Your task to perform on an android device: check the backup settings in the google photos Image 0: 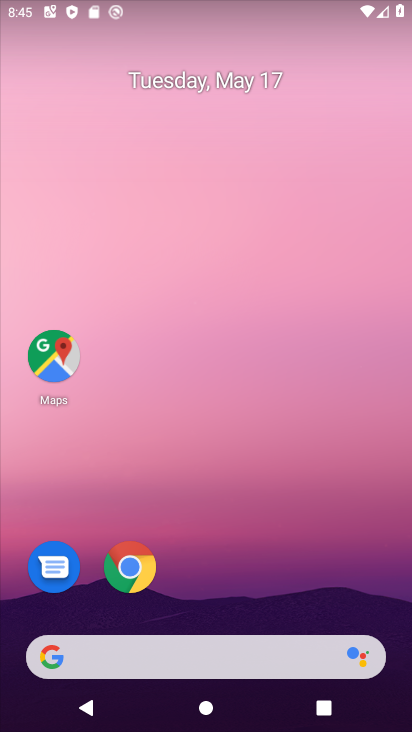
Step 0: drag from (236, 550) to (122, 30)
Your task to perform on an android device: check the backup settings in the google photos Image 1: 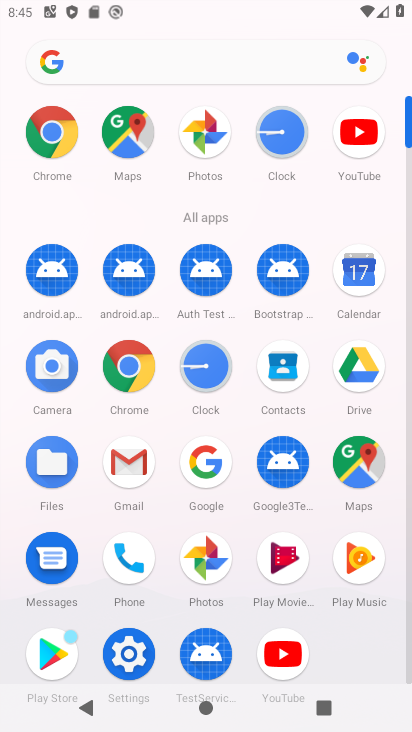
Step 1: click (202, 124)
Your task to perform on an android device: check the backup settings in the google photos Image 2: 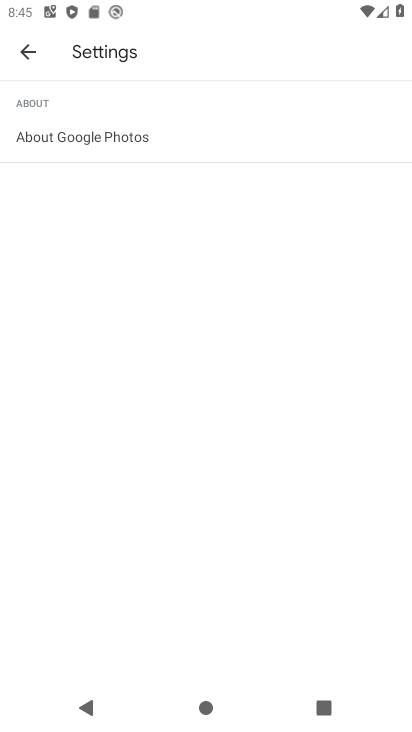
Step 2: click (25, 56)
Your task to perform on an android device: check the backup settings in the google photos Image 3: 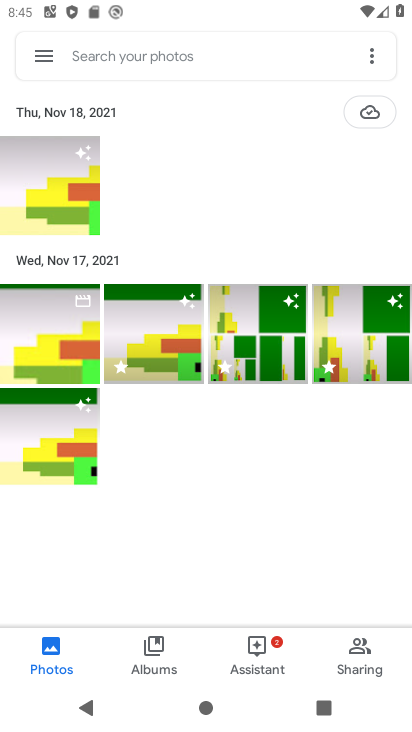
Step 3: click (38, 57)
Your task to perform on an android device: check the backup settings in the google photos Image 4: 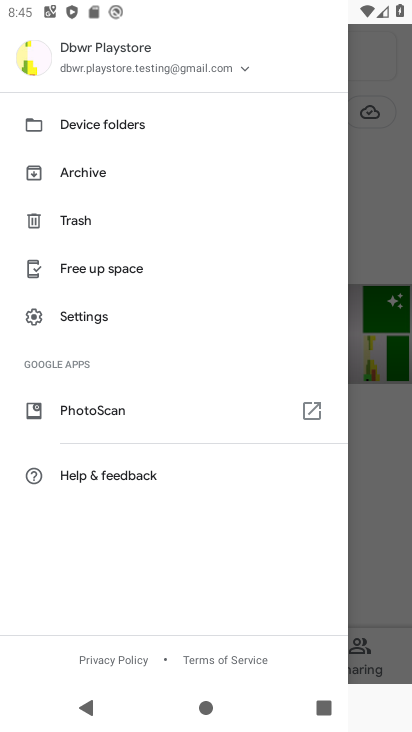
Step 4: click (97, 316)
Your task to perform on an android device: check the backup settings in the google photos Image 5: 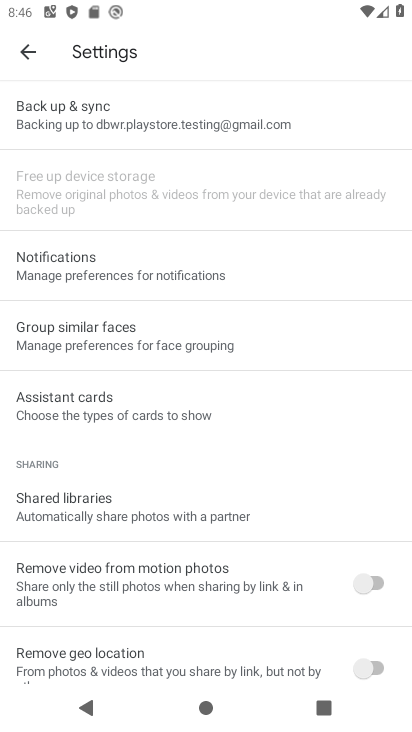
Step 5: click (63, 102)
Your task to perform on an android device: check the backup settings in the google photos Image 6: 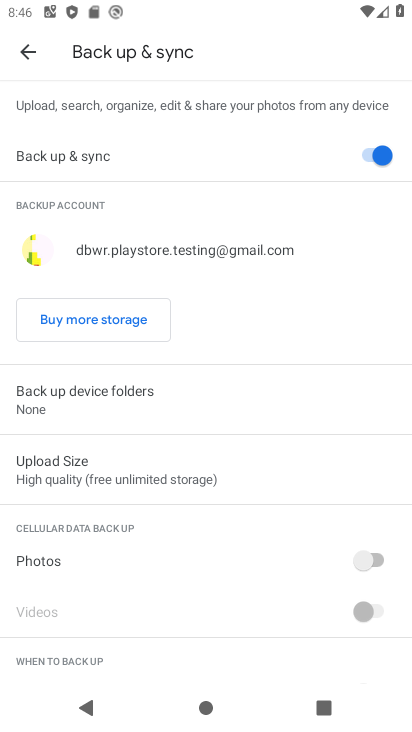
Step 6: task complete